Your task to perform on an android device: open app "Booking.com: Hotels and more" (install if not already installed) and go to login screen Image 0: 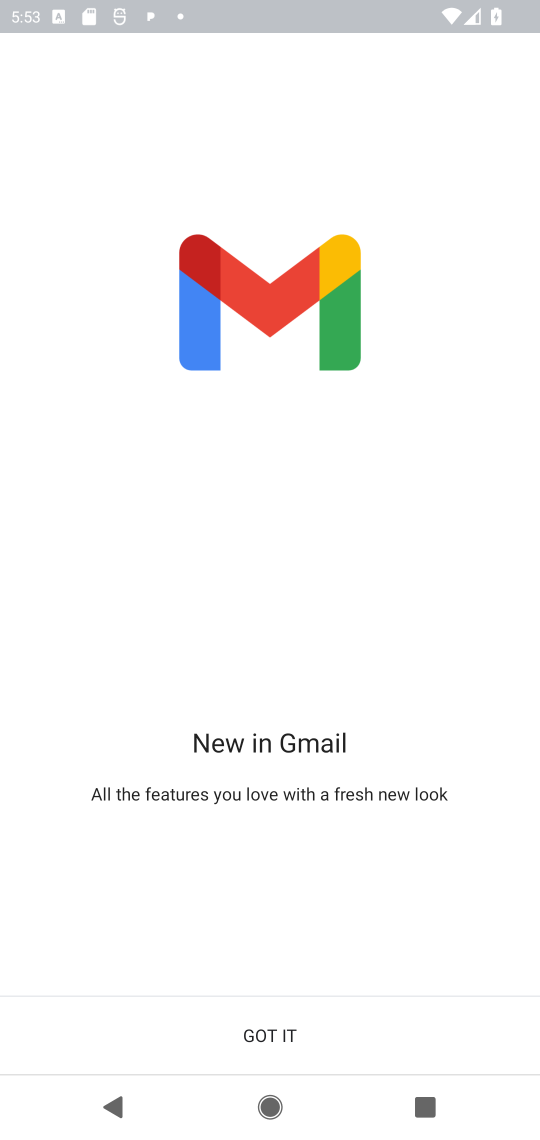
Step 0: press home button
Your task to perform on an android device: open app "Booking.com: Hotels and more" (install if not already installed) and go to login screen Image 1: 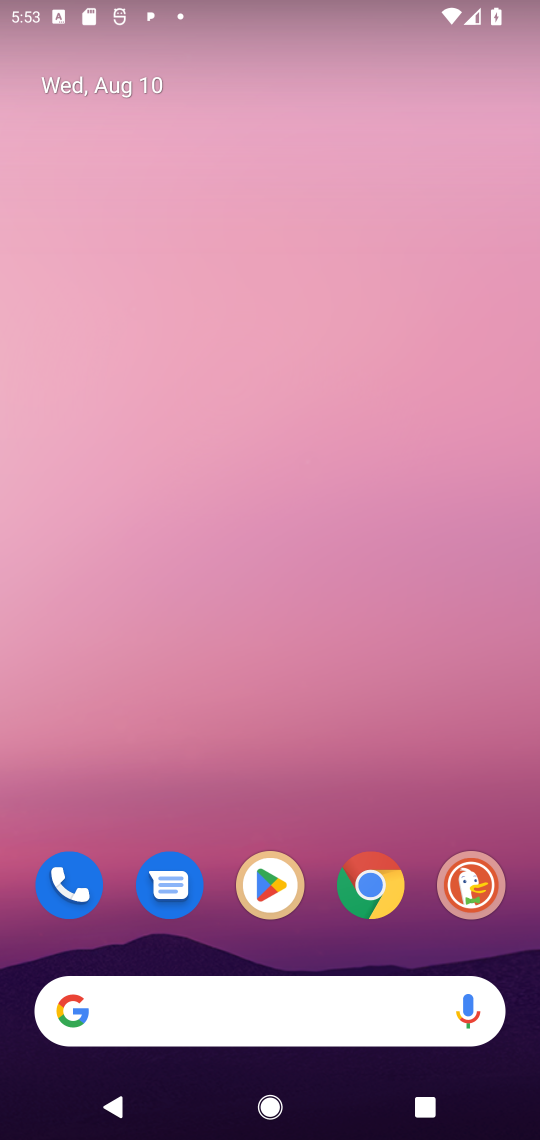
Step 1: click (260, 891)
Your task to perform on an android device: open app "Booking.com: Hotels and more" (install if not already installed) and go to login screen Image 2: 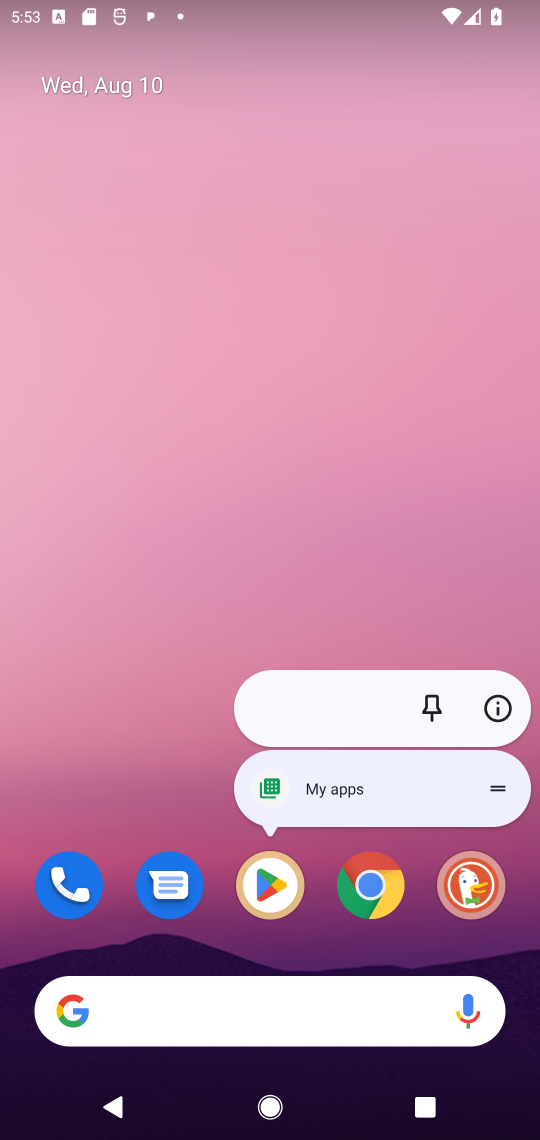
Step 2: click (282, 887)
Your task to perform on an android device: open app "Booking.com: Hotels and more" (install if not already installed) and go to login screen Image 3: 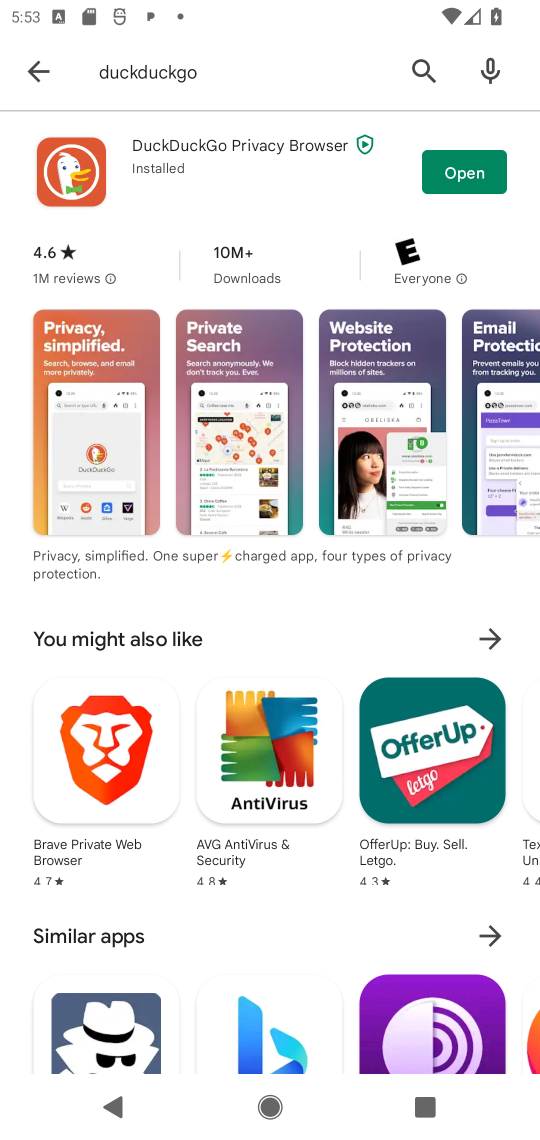
Step 3: click (423, 62)
Your task to perform on an android device: open app "Booking.com: Hotels and more" (install if not already installed) and go to login screen Image 4: 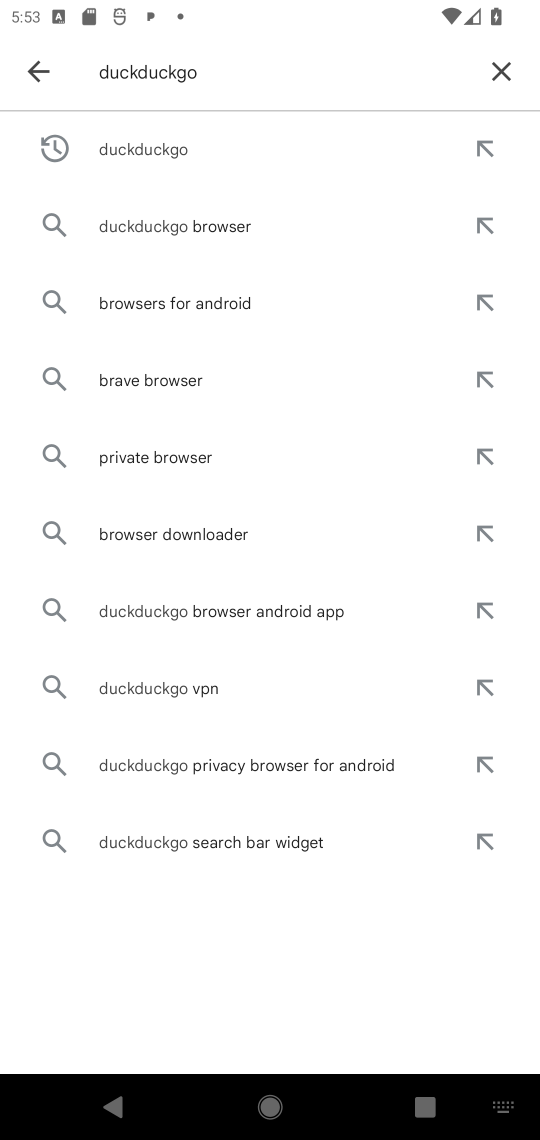
Step 4: click (504, 66)
Your task to perform on an android device: open app "Booking.com: Hotels and more" (install if not already installed) and go to login screen Image 5: 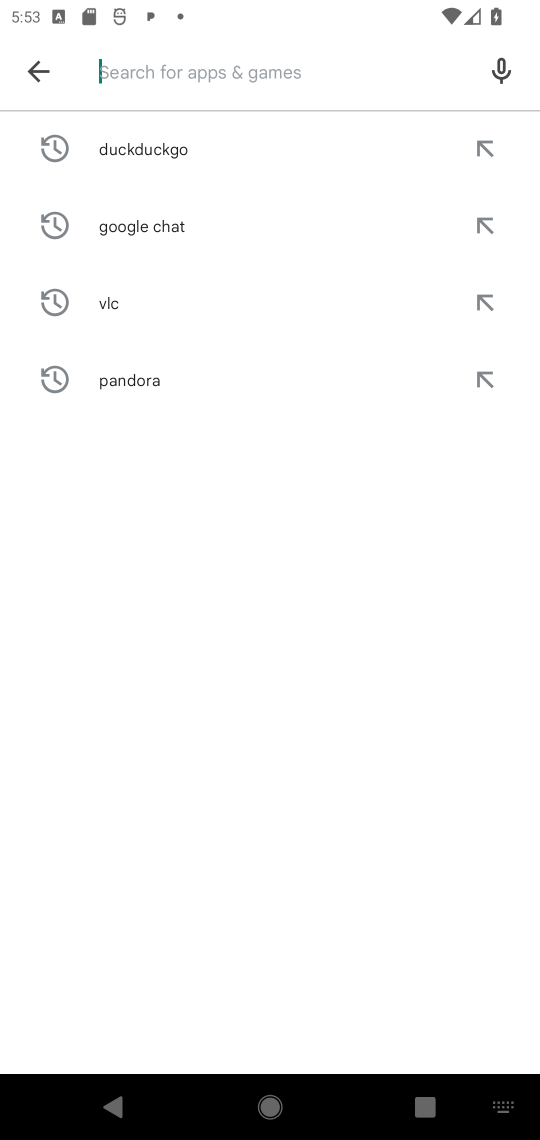
Step 5: click (197, 75)
Your task to perform on an android device: open app "Booking.com: Hotels and more" (install if not already installed) and go to login screen Image 6: 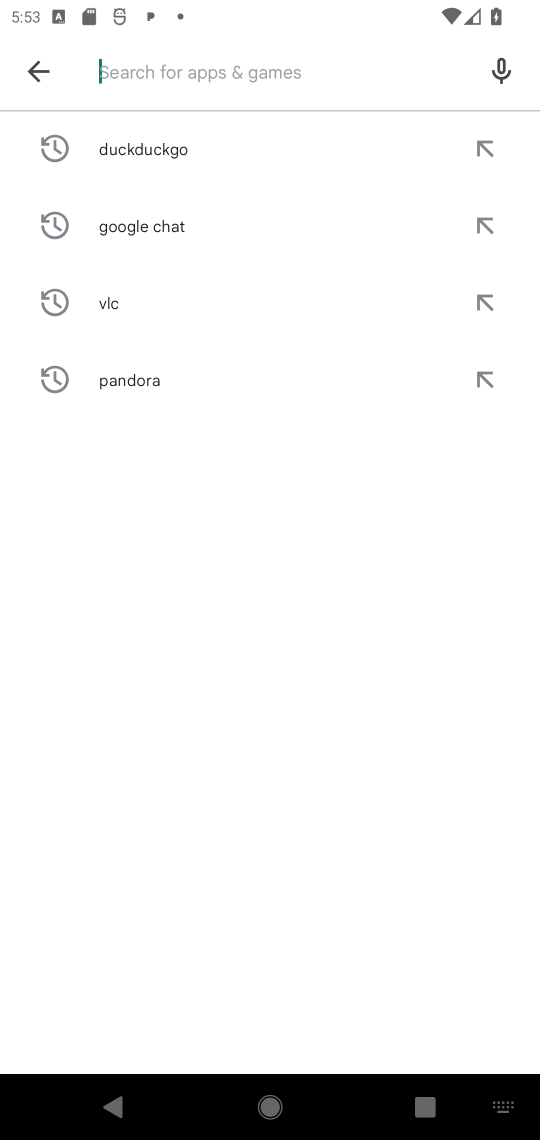
Step 6: type "Booking.com: Hotels and more"
Your task to perform on an android device: open app "Booking.com: Hotels and more" (install if not already installed) and go to login screen Image 7: 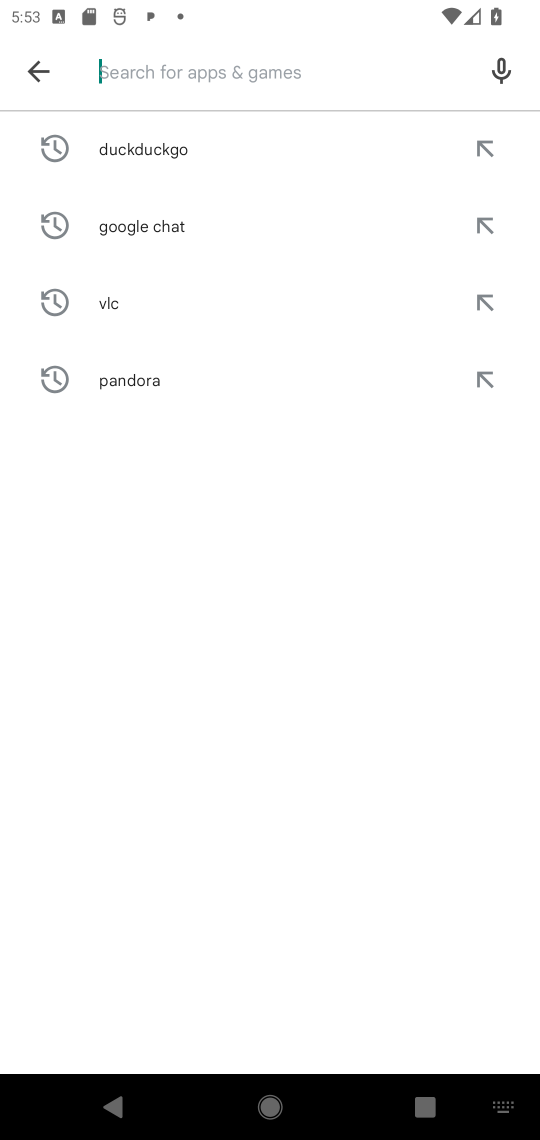
Step 7: click (318, 762)
Your task to perform on an android device: open app "Booking.com: Hotels and more" (install if not already installed) and go to login screen Image 8: 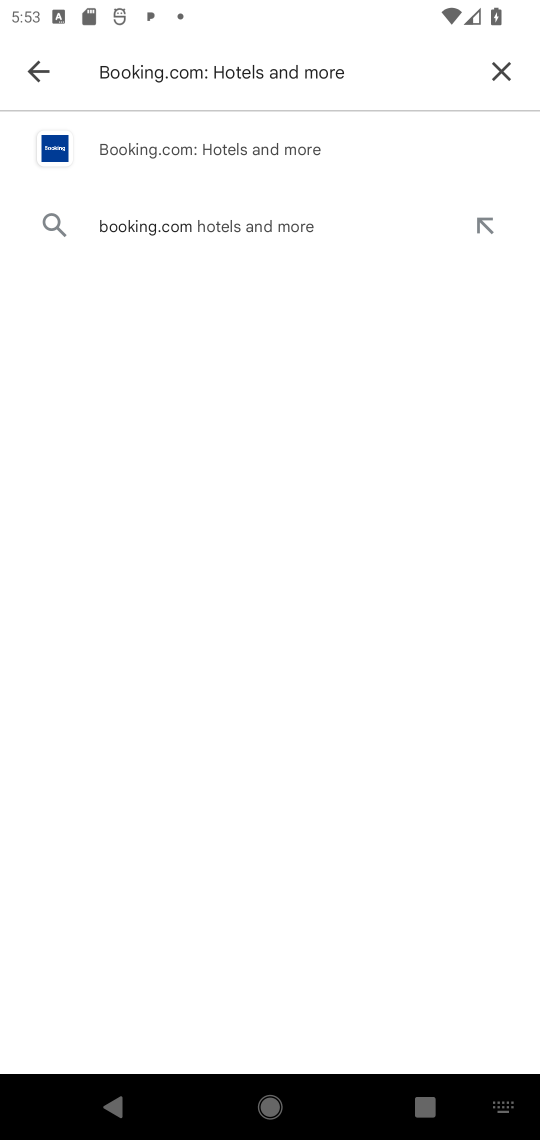
Step 8: click (260, 146)
Your task to perform on an android device: open app "Booking.com: Hotels and more" (install if not already installed) and go to login screen Image 9: 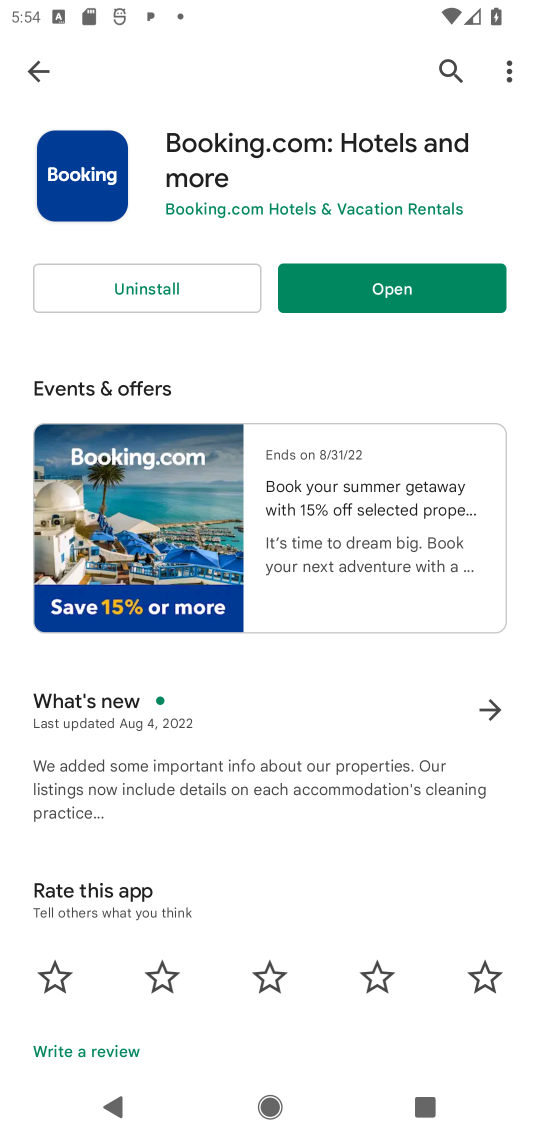
Step 9: click (456, 288)
Your task to perform on an android device: open app "Booking.com: Hotels and more" (install if not already installed) and go to login screen Image 10: 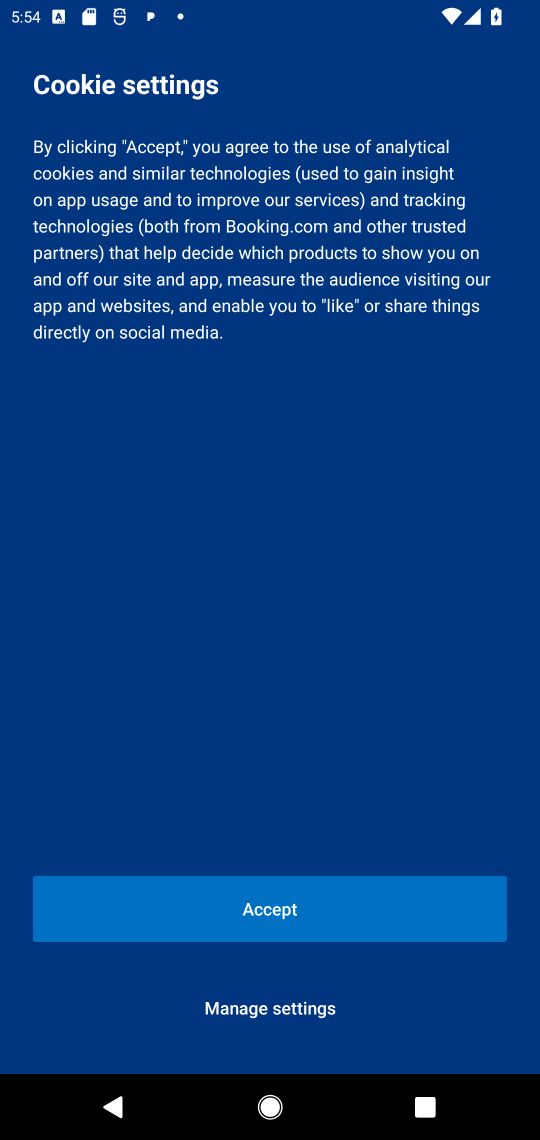
Step 10: click (331, 897)
Your task to perform on an android device: open app "Booking.com: Hotels and more" (install if not already installed) and go to login screen Image 11: 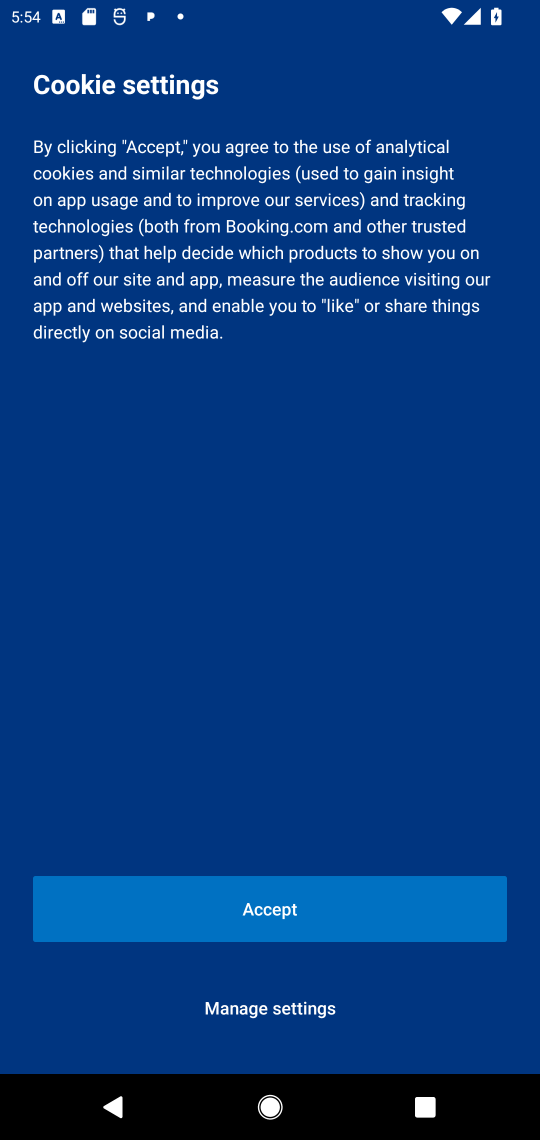
Step 11: click (285, 914)
Your task to perform on an android device: open app "Booking.com: Hotels and more" (install if not already installed) and go to login screen Image 12: 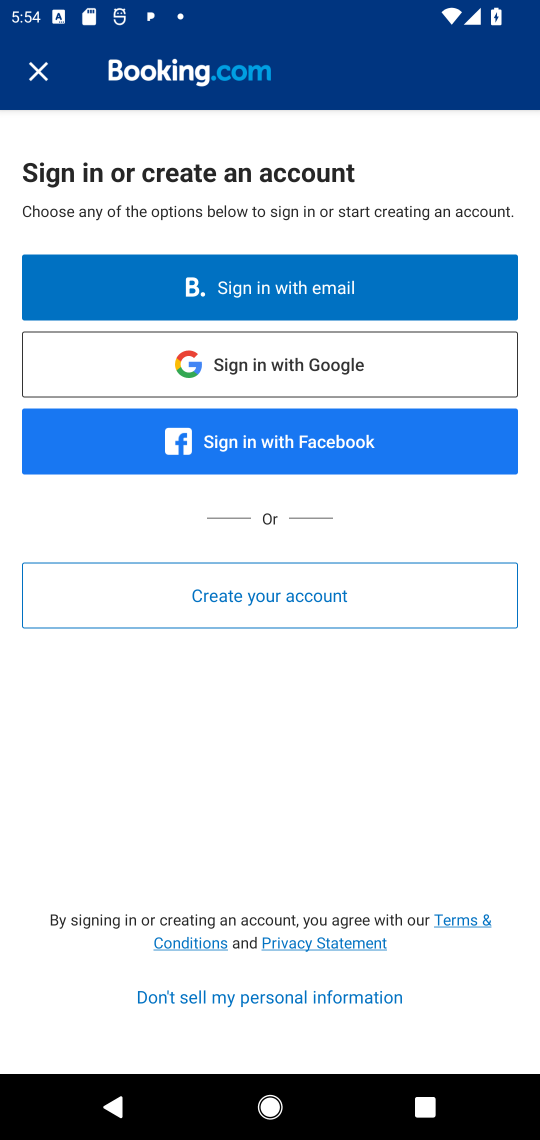
Step 12: task complete